Your task to perform on an android device: change the clock display to digital Image 0: 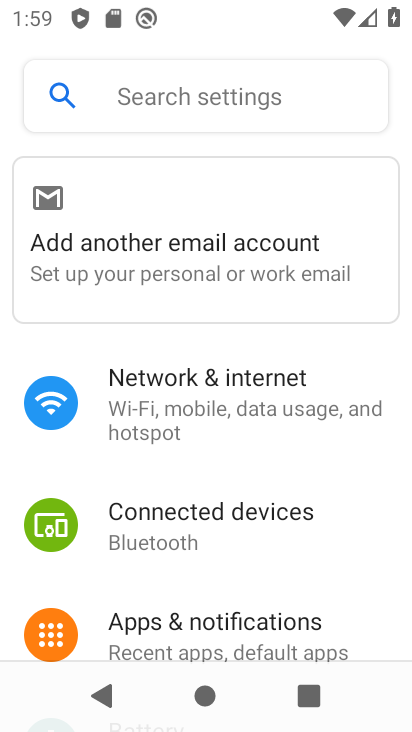
Step 0: press home button
Your task to perform on an android device: change the clock display to digital Image 1: 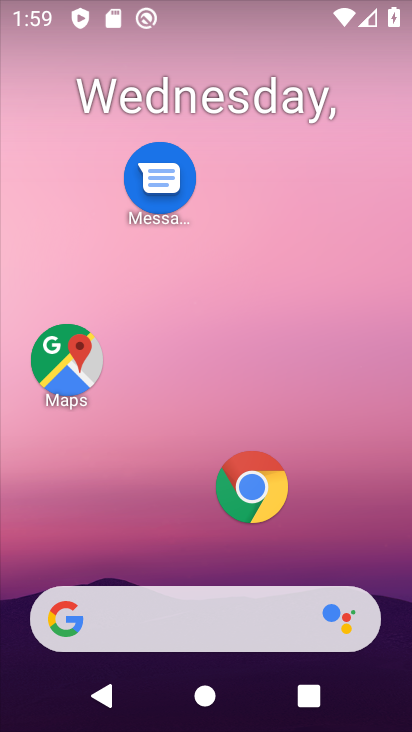
Step 1: drag from (173, 563) to (236, 137)
Your task to perform on an android device: change the clock display to digital Image 2: 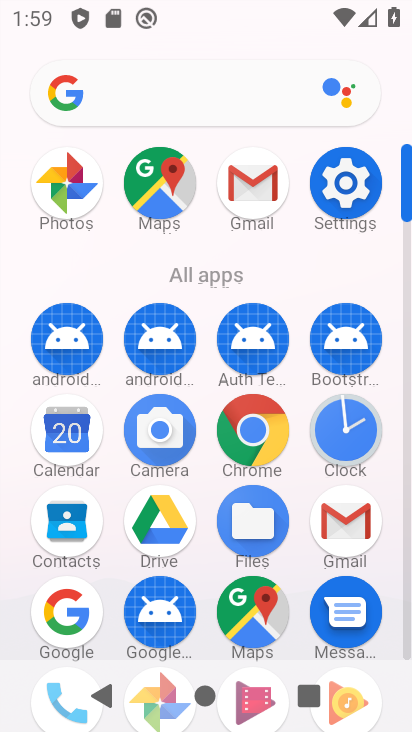
Step 2: click (322, 433)
Your task to perform on an android device: change the clock display to digital Image 3: 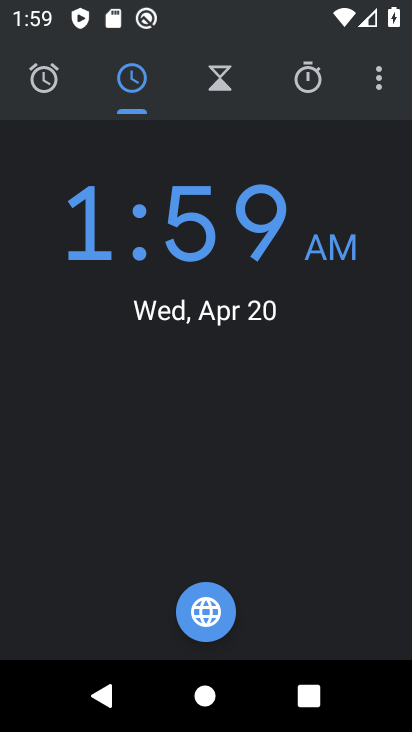
Step 3: click (372, 78)
Your task to perform on an android device: change the clock display to digital Image 4: 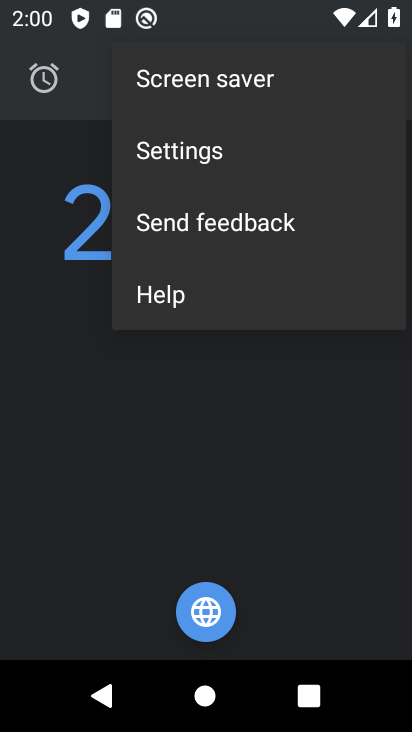
Step 4: click (221, 158)
Your task to perform on an android device: change the clock display to digital Image 5: 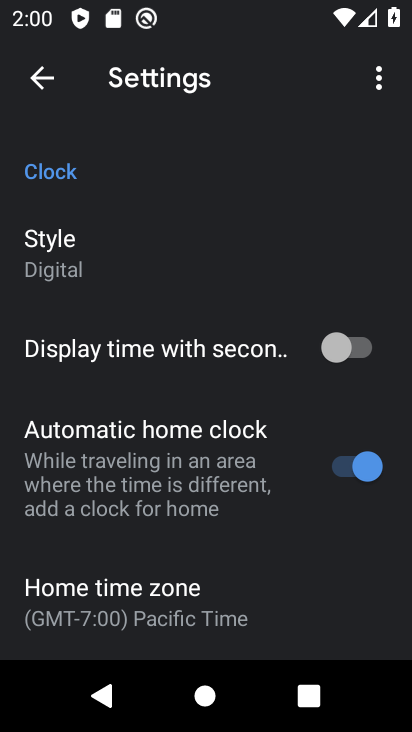
Step 5: click (91, 234)
Your task to perform on an android device: change the clock display to digital Image 6: 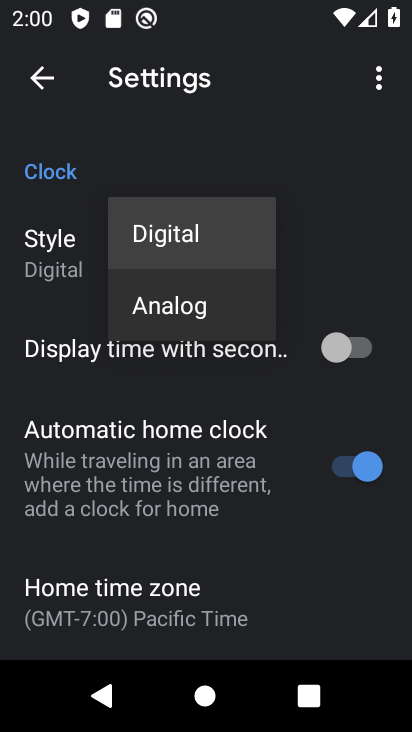
Step 6: task complete